Your task to perform on an android device: Go to Maps Image 0: 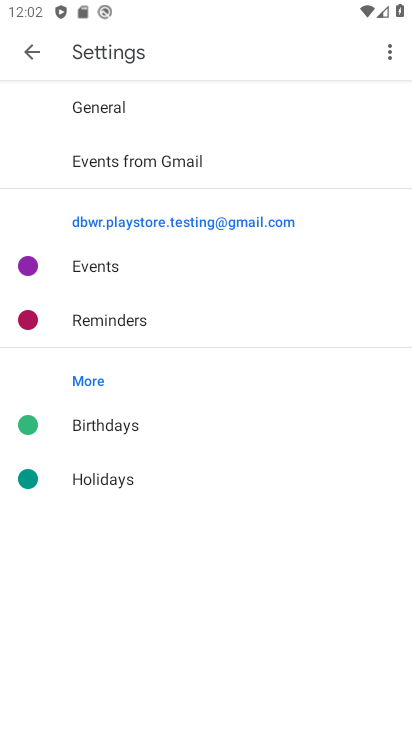
Step 0: press home button
Your task to perform on an android device: Go to Maps Image 1: 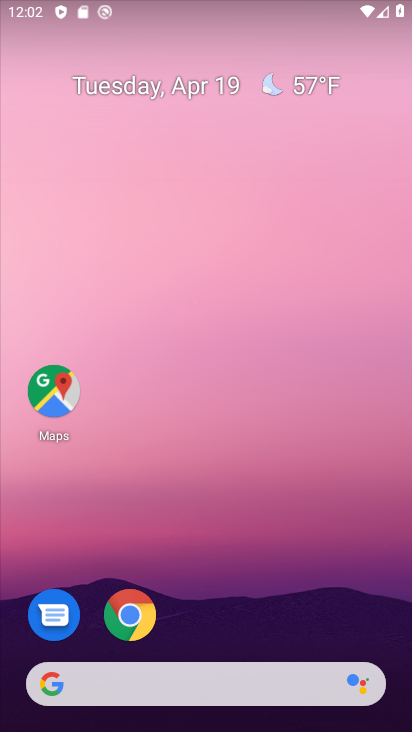
Step 1: click (42, 389)
Your task to perform on an android device: Go to Maps Image 2: 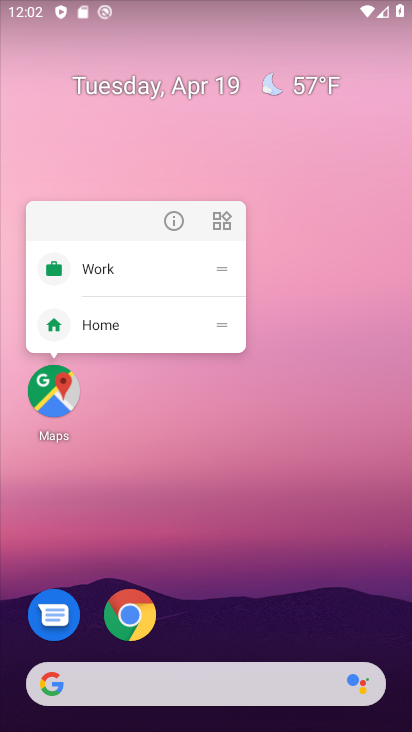
Step 2: click (42, 389)
Your task to perform on an android device: Go to Maps Image 3: 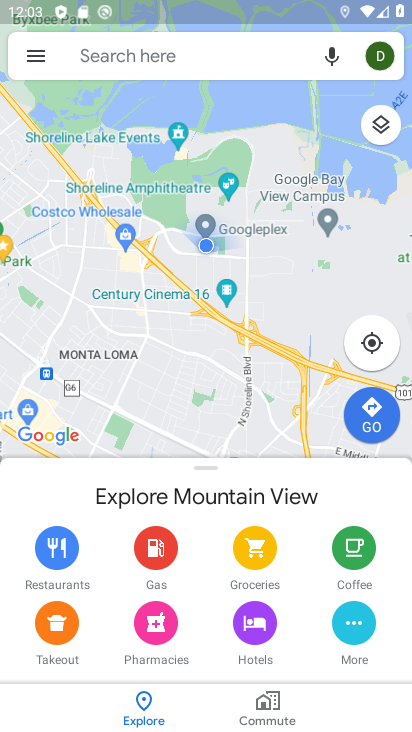
Step 3: task complete